Your task to perform on an android device: Open network settings Image 0: 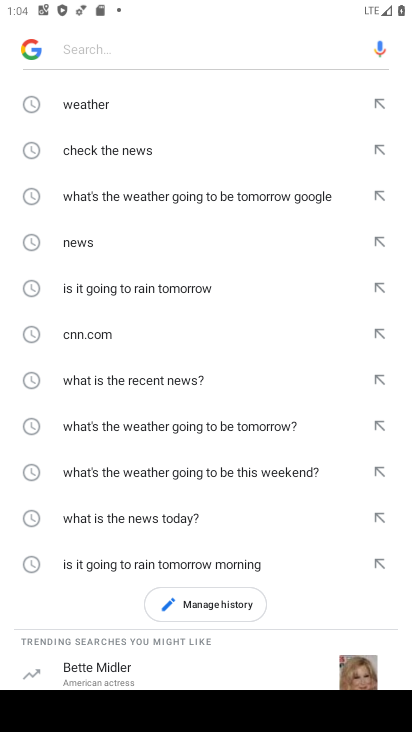
Step 0: press home button
Your task to perform on an android device: Open network settings Image 1: 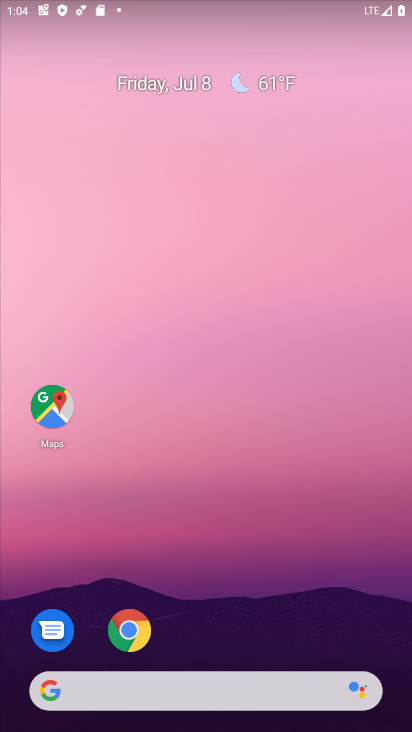
Step 1: drag from (370, 633) to (81, 14)
Your task to perform on an android device: Open network settings Image 2: 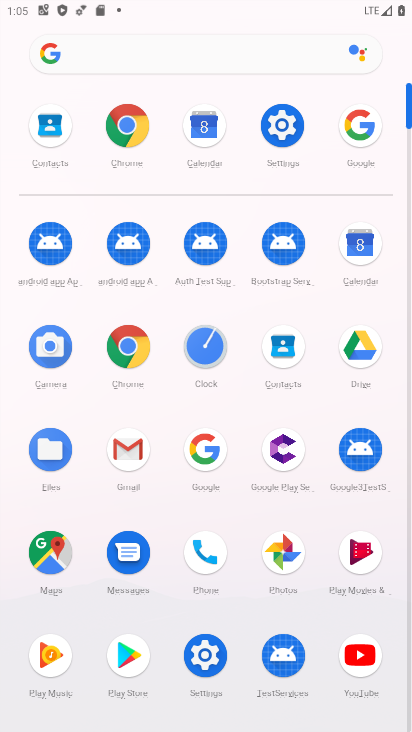
Step 2: click (195, 643)
Your task to perform on an android device: Open network settings Image 3: 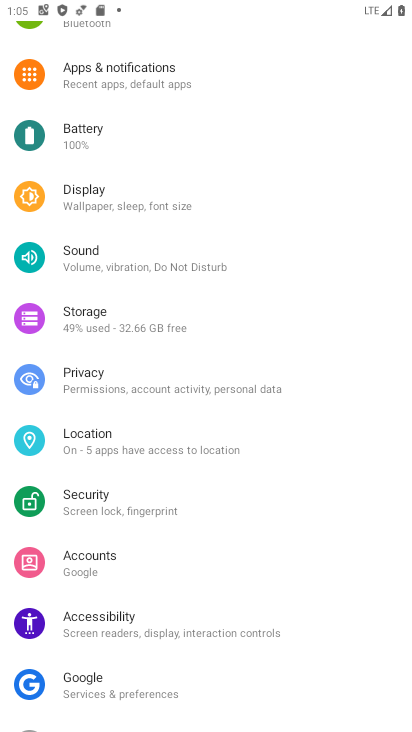
Step 3: drag from (166, 134) to (188, 631)
Your task to perform on an android device: Open network settings Image 4: 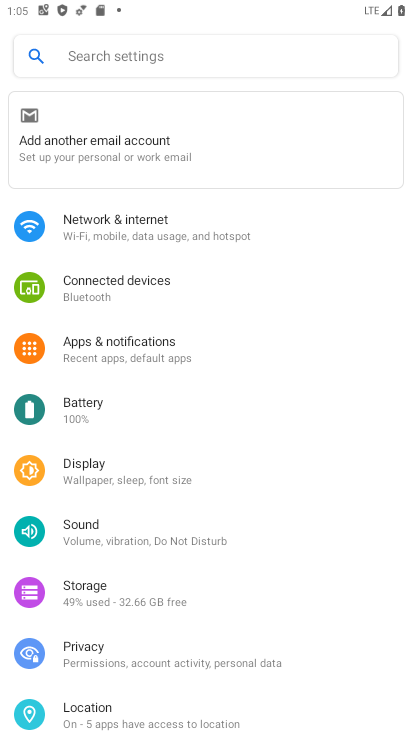
Step 4: click (130, 232)
Your task to perform on an android device: Open network settings Image 5: 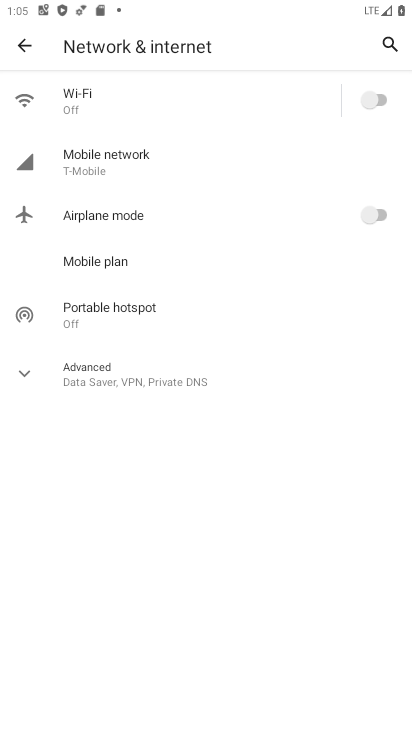
Step 5: task complete